Your task to perform on an android device: Open Google Maps and go to "Timeline" Image 0: 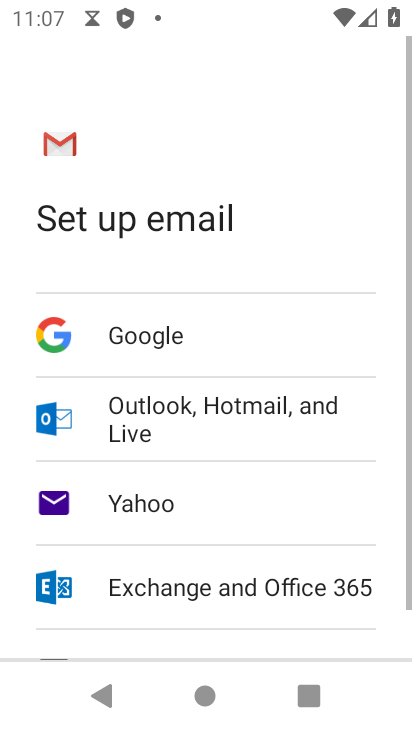
Step 0: press home button
Your task to perform on an android device: Open Google Maps and go to "Timeline" Image 1: 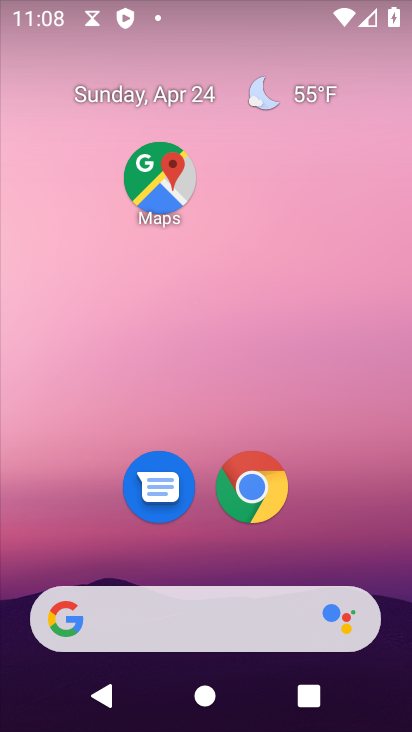
Step 1: click (253, 553)
Your task to perform on an android device: Open Google Maps and go to "Timeline" Image 2: 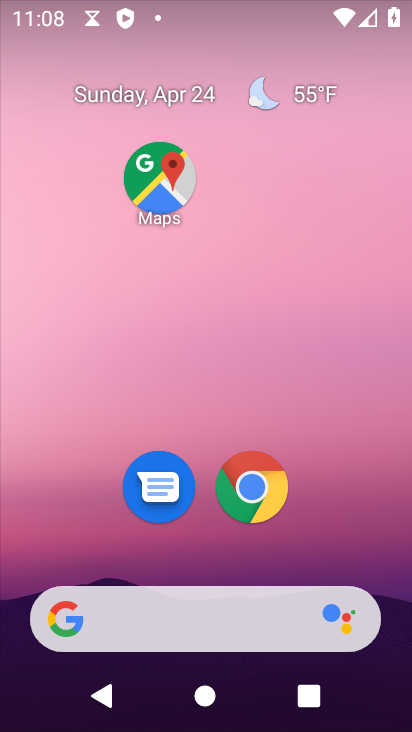
Step 2: click (179, 200)
Your task to perform on an android device: Open Google Maps and go to "Timeline" Image 3: 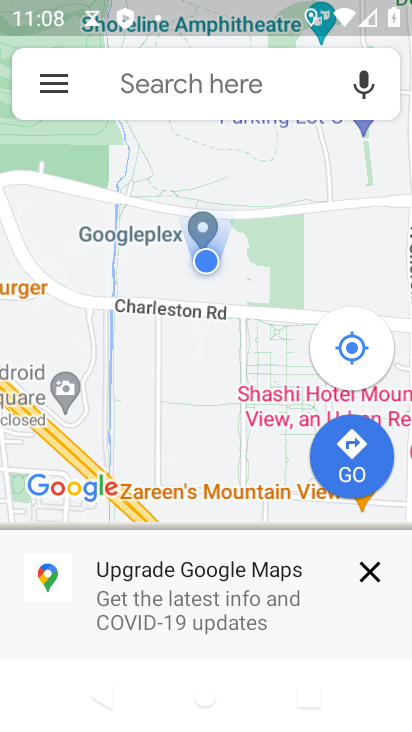
Step 3: click (62, 83)
Your task to perform on an android device: Open Google Maps and go to "Timeline" Image 4: 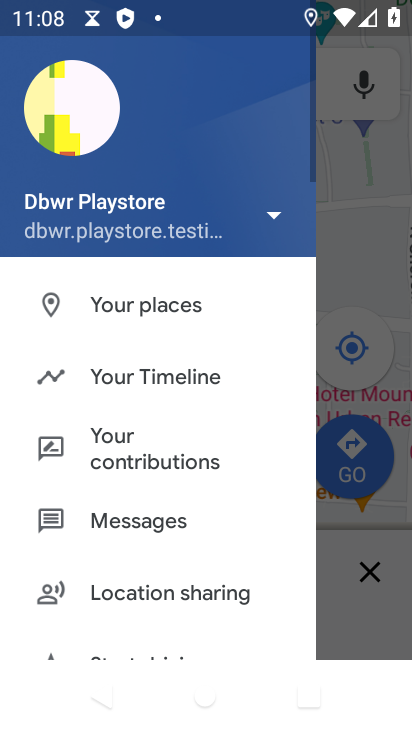
Step 4: click (140, 373)
Your task to perform on an android device: Open Google Maps and go to "Timeline" Image 5: 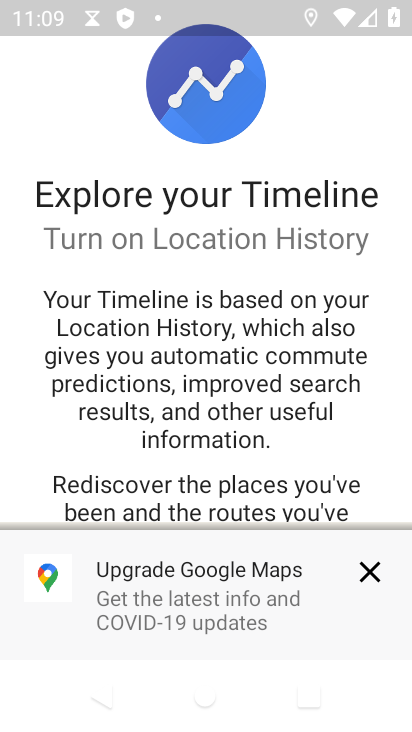
Step 5: click (374, 581)
Your task to perform on an android device: Open Google Maps and go to "Timeline" Image 6: 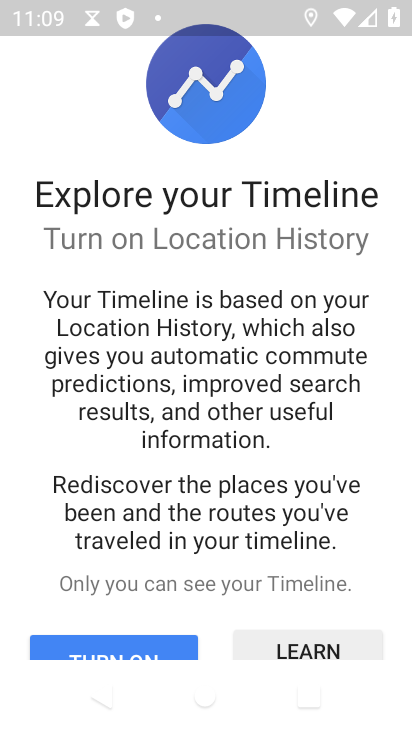
Step 6: drag from (328, 595) to (315, 280)
Your task to perform on an android device: Open Google Maps and go to "Timeline" Image 7: 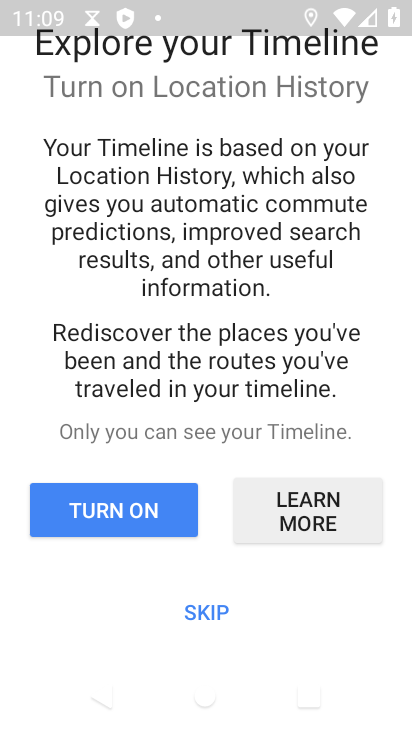
Step 7: click (187, 612)
Your task to perform on an android device: Open Google Maps and go to "Timeline" Image 8: 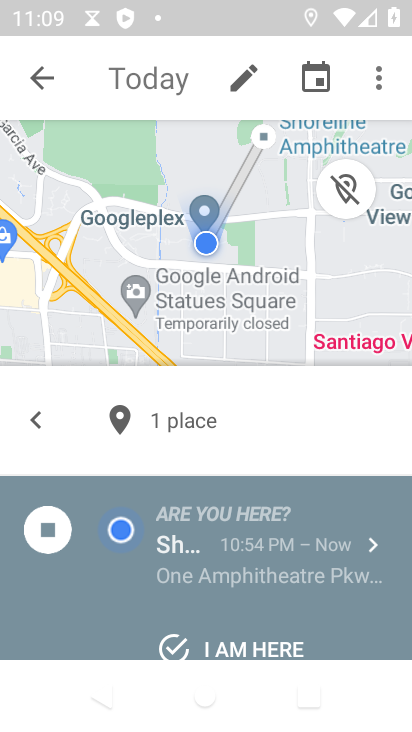
Step 8: task complete